Your task to perform on an android device: Go to Google Image 0: 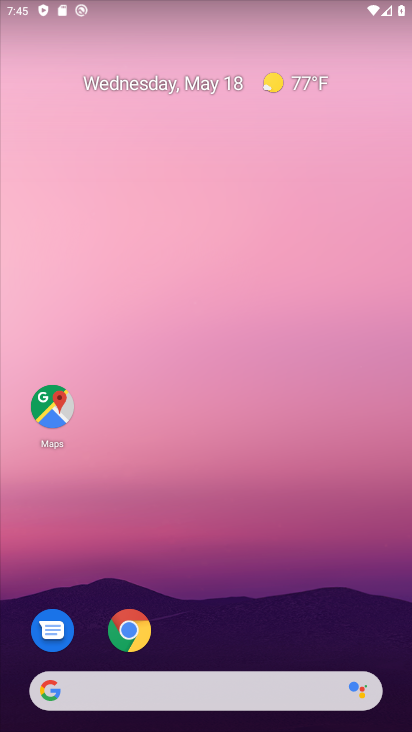
Step 0: drag from (231, 632) to (230, 262)
Your task to perform on an android device: Go to Google Image 1: 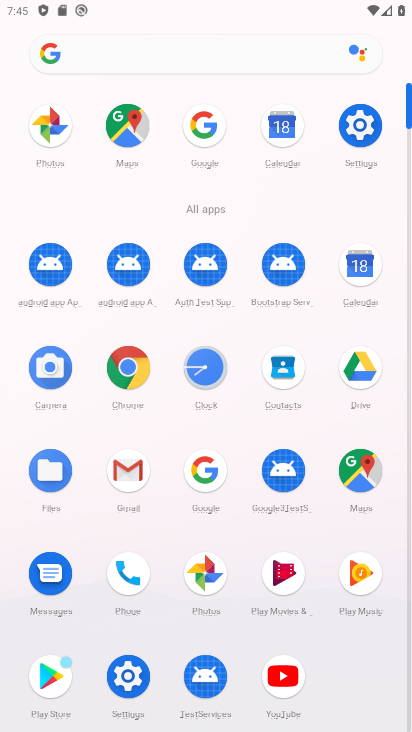
Step 1: click (204, 482)
Your task to perform on an android device: Go to Google Image 2: 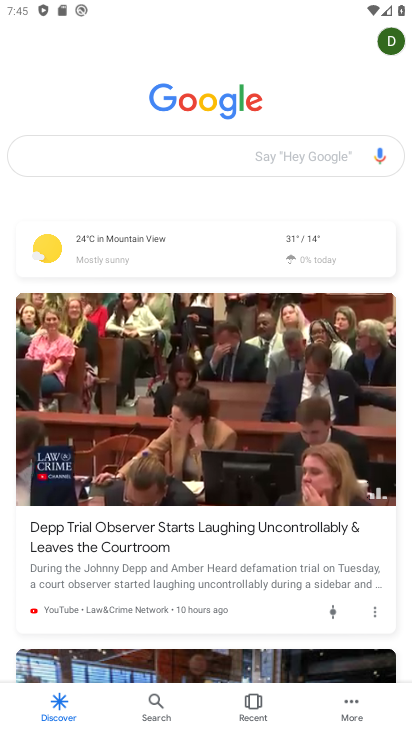
Step 2: task complete